Your task to perform on an android device: What's a good restaurant in Seattle? Image 0: 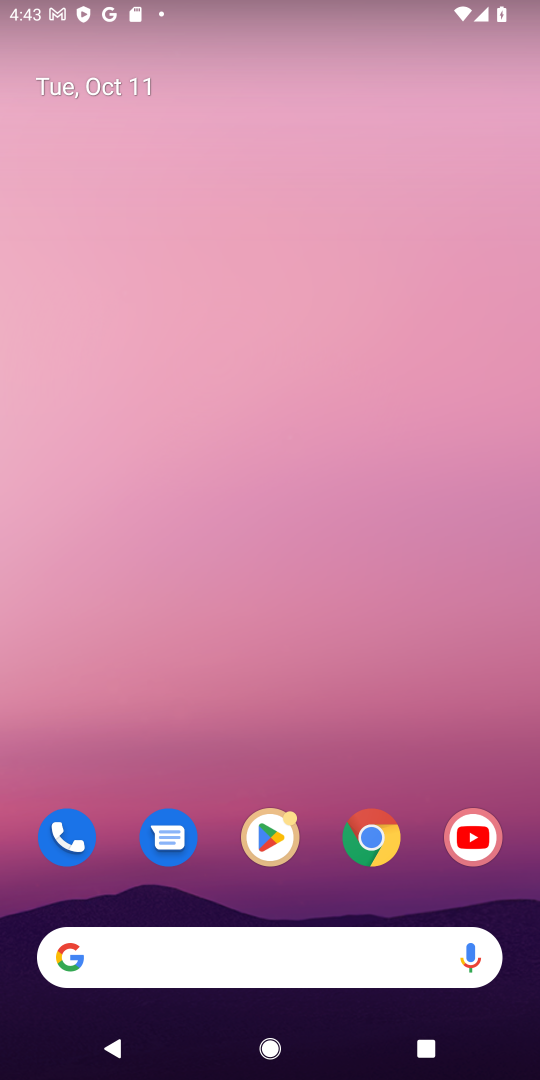
Step 0: drag from (153, 740) to (380, 89)
Your task to perform on an android device: What's a good restaurant in Seattle? Image 1: 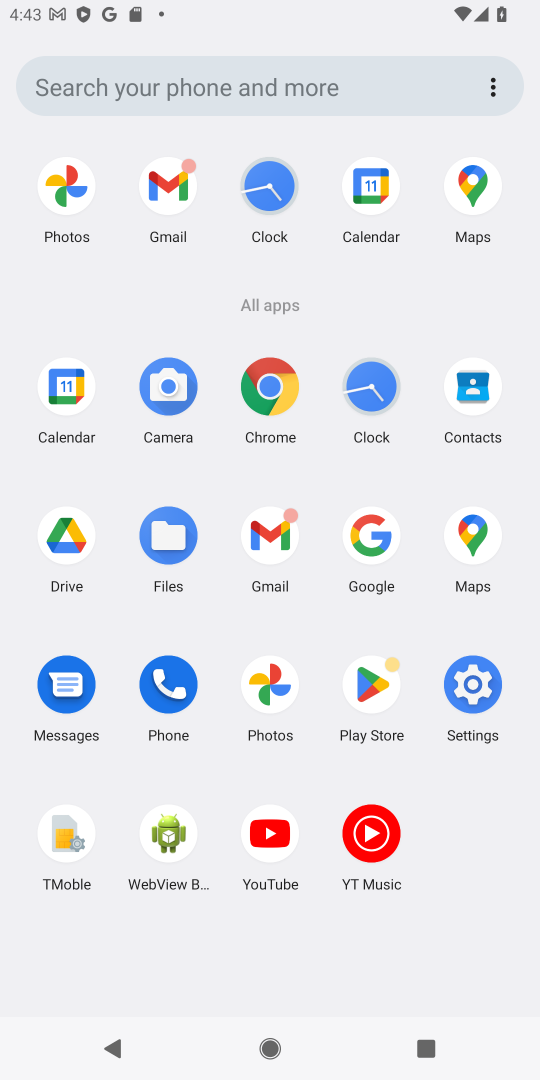
Step 1: click (265, 372)
Your task to perform on an android device: What's a good restaurant in Seattle? Image 2: 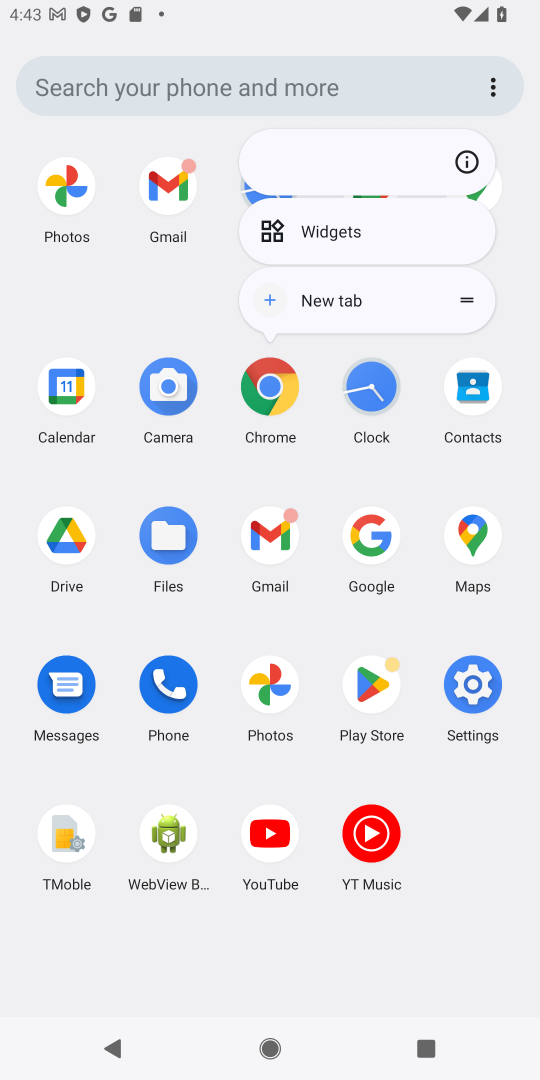
Step 2: click (288, 404)
Your task to perform on an android device: What's a good restaurant in Seattle? Image 3: 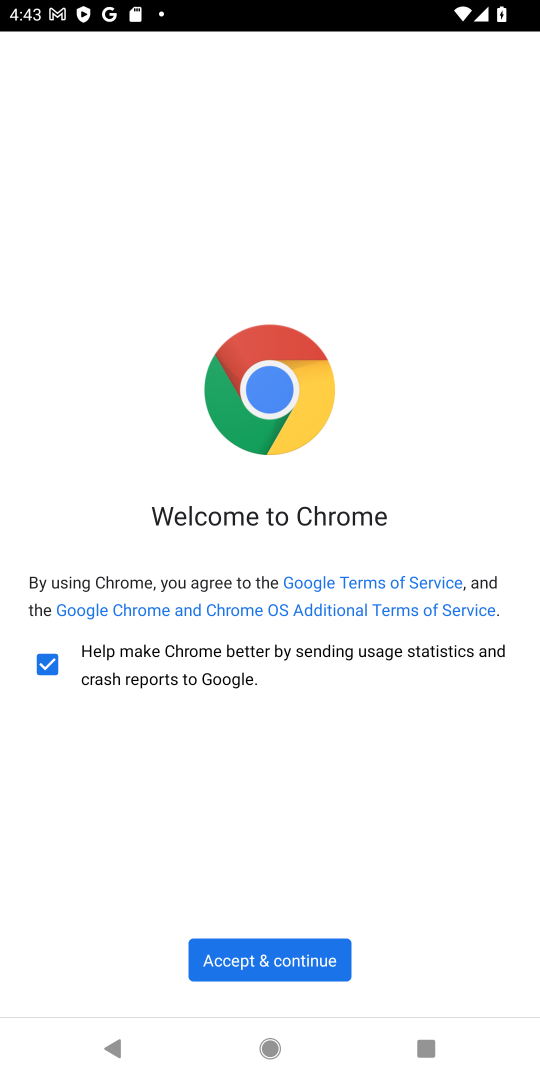
Step 3: click (221, 965)
Your task to perform on an android device: What's a good restaurant in Seattle? Image 4: 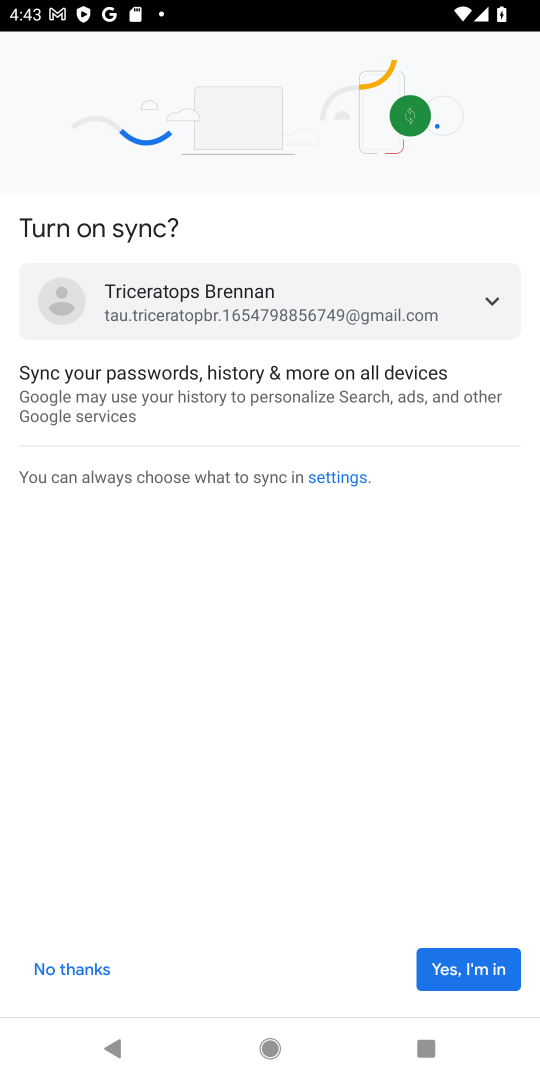
Step 4: click (455, 960)
Your task to perform on an android device: What's a good restaurant in Seattle? Image 5: 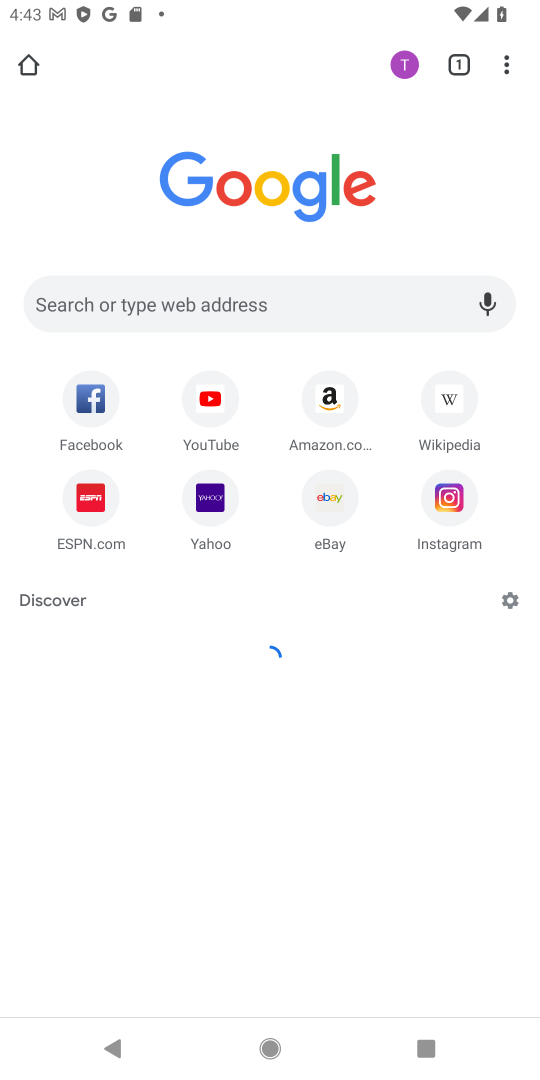
Step 5: click (220, 298)
Your task to perform on an android device: What's a good restaurant in Seattle? Image 6: 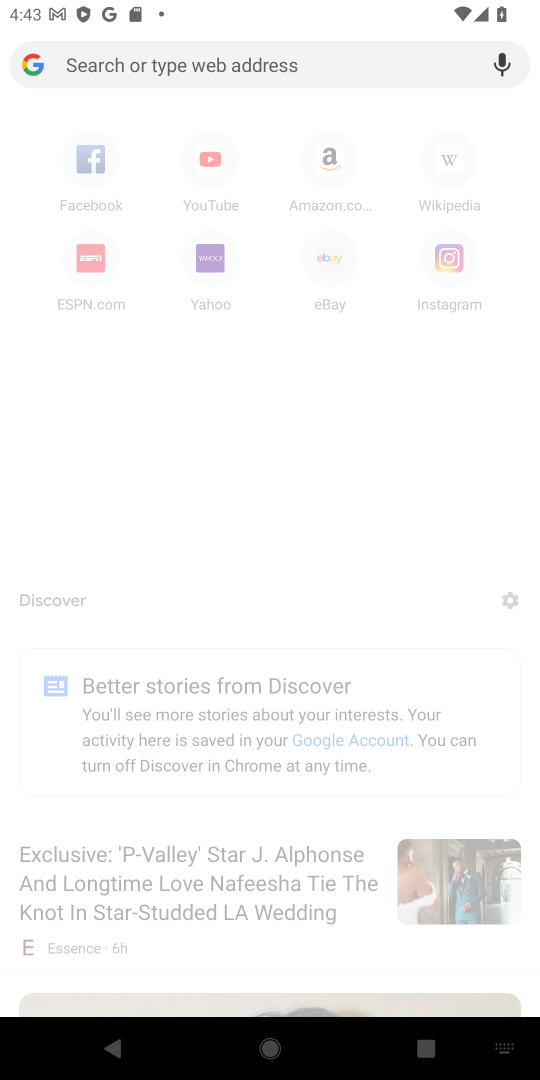
Step 6: type "What's a good restaurant in Seattle?"
Your task to perform on an android device: What's a good restaurant in Seattle? Image 7: 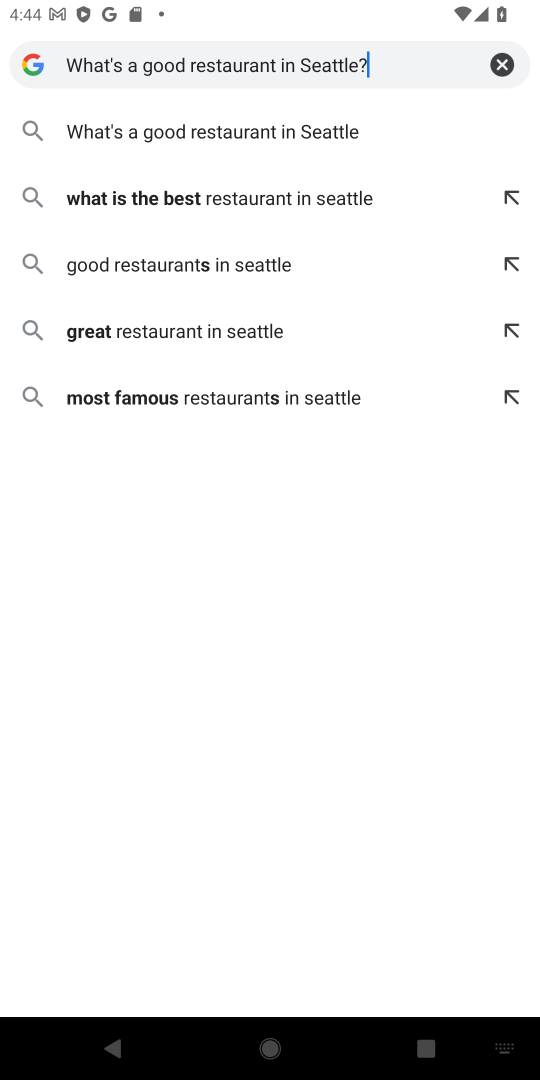
Step 7: press enter
Your task to perform on an android device: What's a good restaurant in Seattle? Image 8: 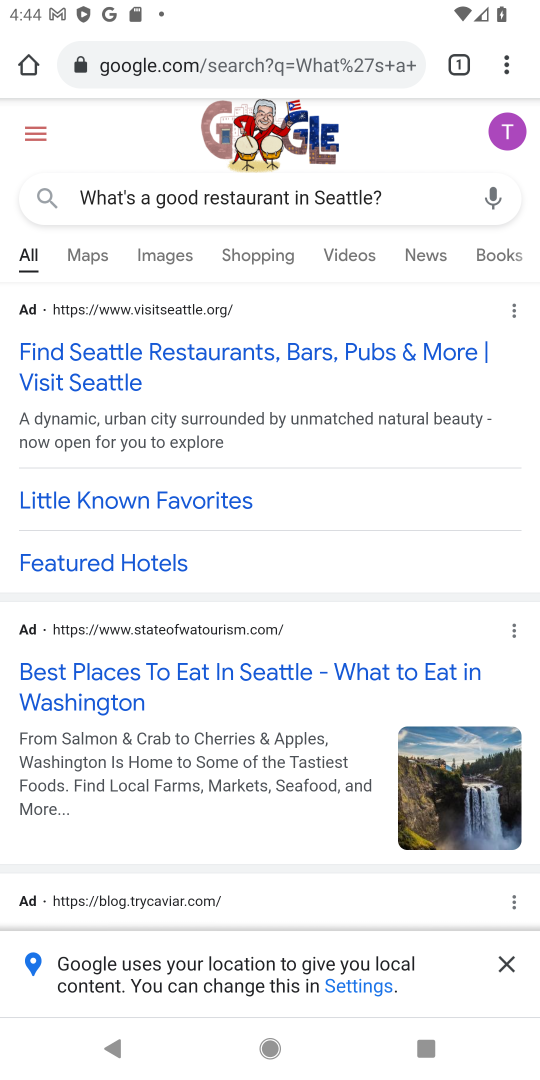
Step 8: click (57, 364)
Your task to perform on an android device: What's a good restaurant in Seattle? Image 9: 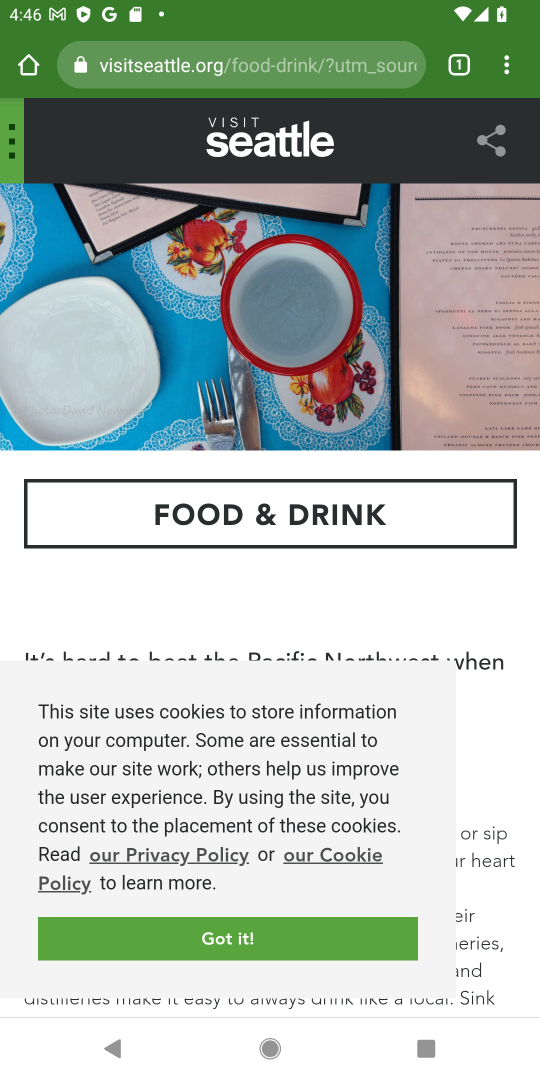
Step 9: task complete